Your task to perform on an android device: Open Wikipedia Image 0: 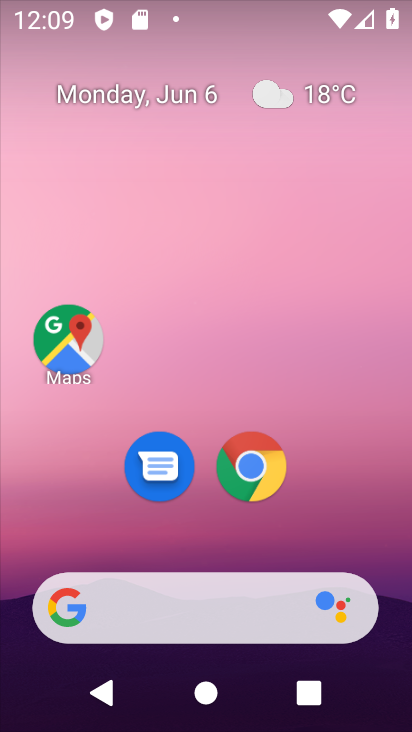
Step 0: click (222, 31)
Your task to perform on an android device: Open Wikipedia Image 1: 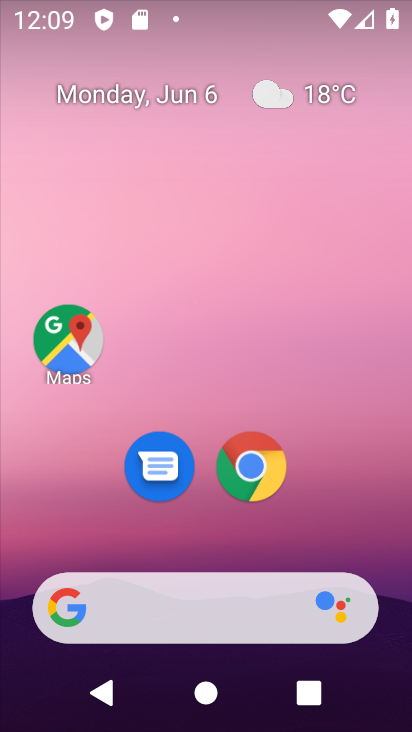
Step 1: drag from (364, 522) to (267, 84)
Your task to perform on an android device: Open Wikipedia Image 2: 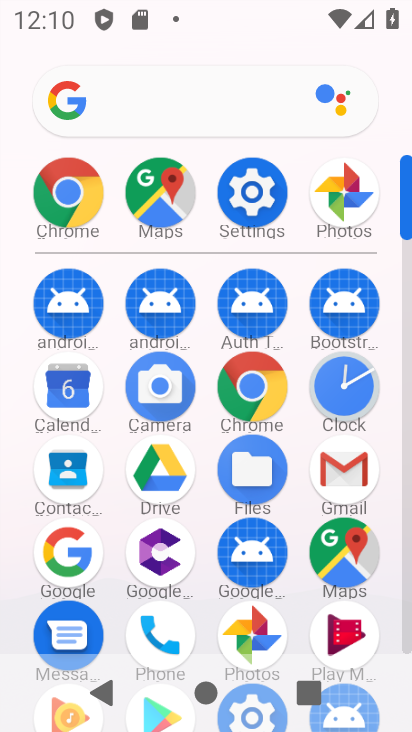
Step 2: drag from (2, 574) to (18, 262)
Your task to perform on an android device: Open Wikipedia Image 3: 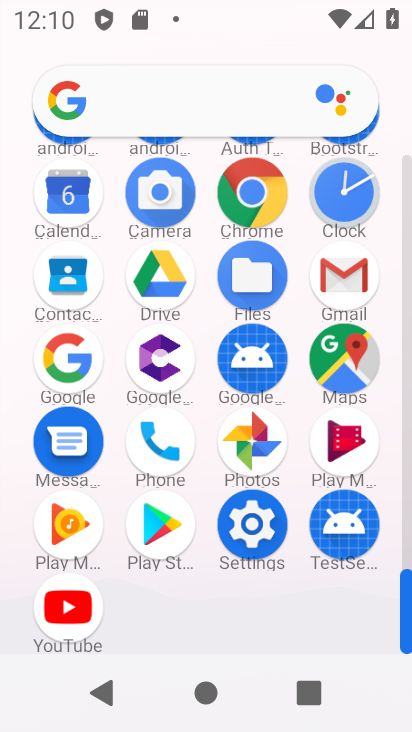
Step 3: click (256, 185)
Your task to perform on an android device: Open Wikipedia Image 4: 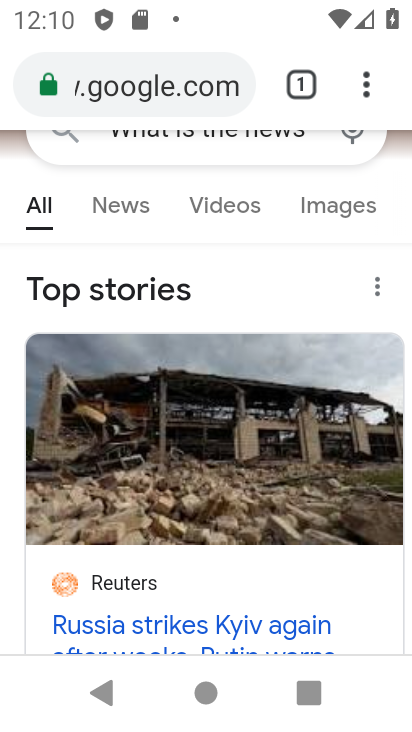
Step 4: click (172, 82)
Your task to perform on an android device: Open Wikipedia Image 5: 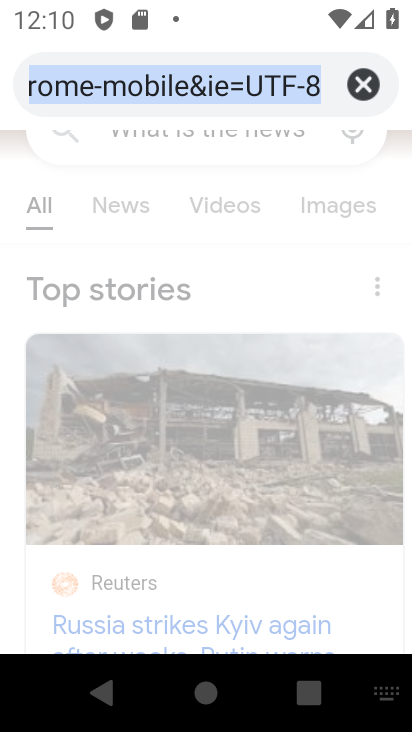
Step 5: click (358, 82)
Your task to perform on an android device: Open Wikipedia Image 6: 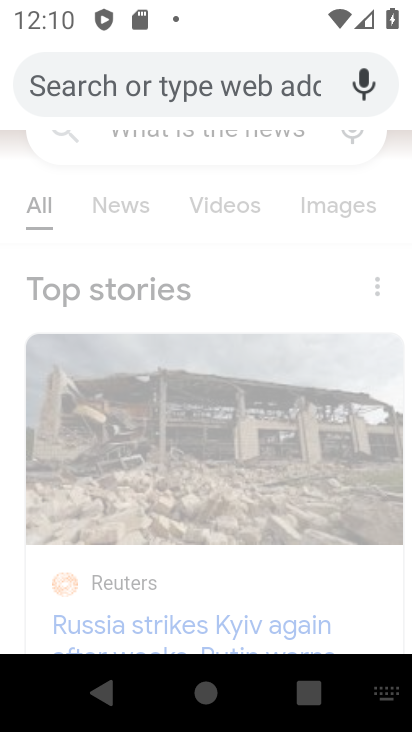
Step 6: type "Wikipedia"
Your task to perform on an android device: Open Wikipedia Image 7: 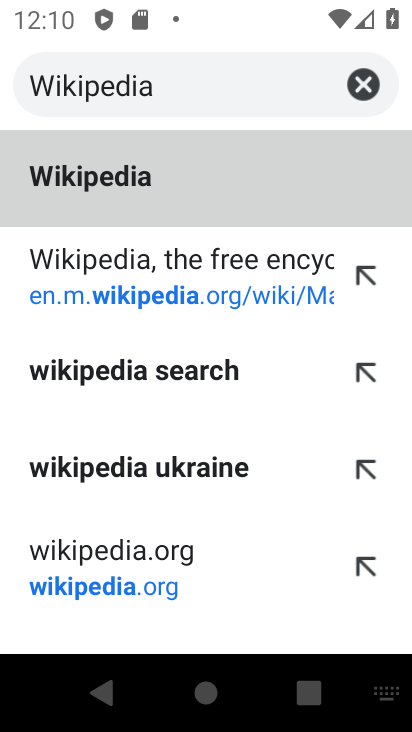
Step 7: click (151, 194)
Your task to perform on an android device: Open Wikipedia Image 8: 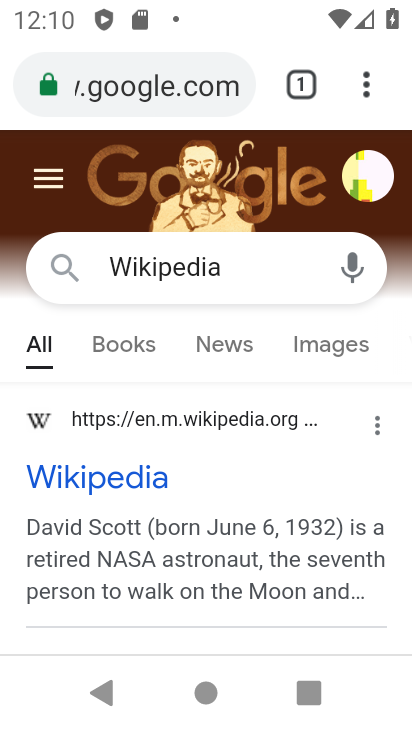
Step 8: click (77, 465)
Your task to perform on an android device: Open Wikipedia Image 9: 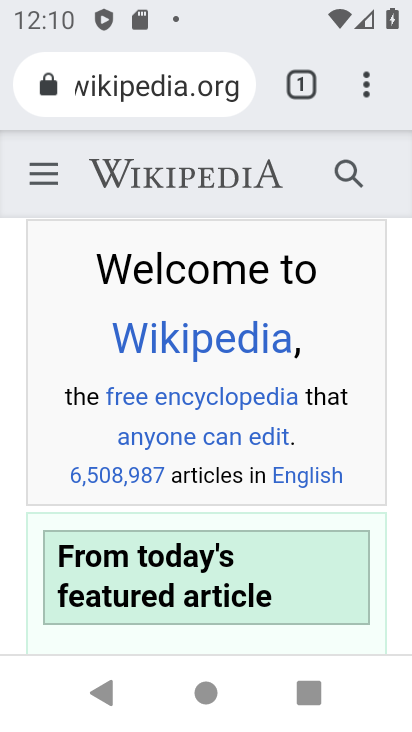
Step 9: task complete